Your task to perform on an android device: Open Amazon Image 0: 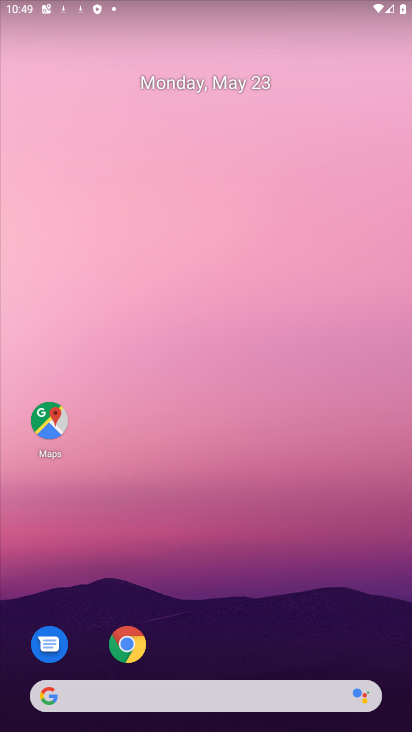
Step 0: press home button
Your task to perform on an android device: Open Amazon Image 1: 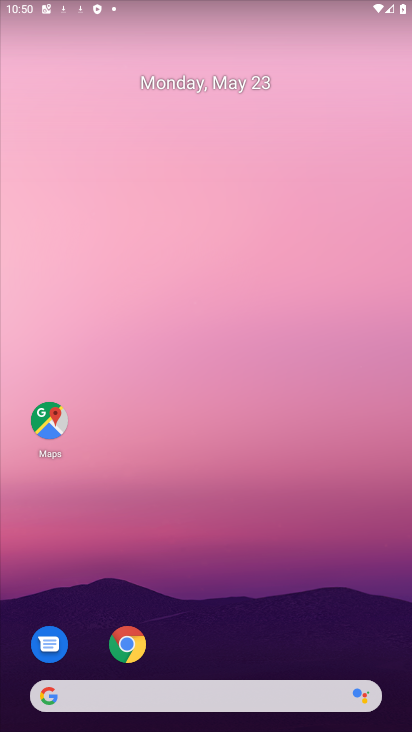
Step 1: drag from (187, 715) to (173, 239)
Your task to perform on an android device: Open Amazon Image 2: 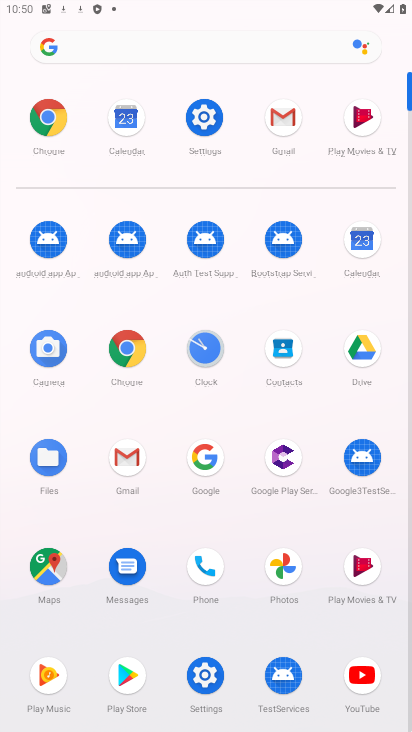
Step 2: click (136, 349)
Your task to perform on an android device: Open Amazon Image 3: 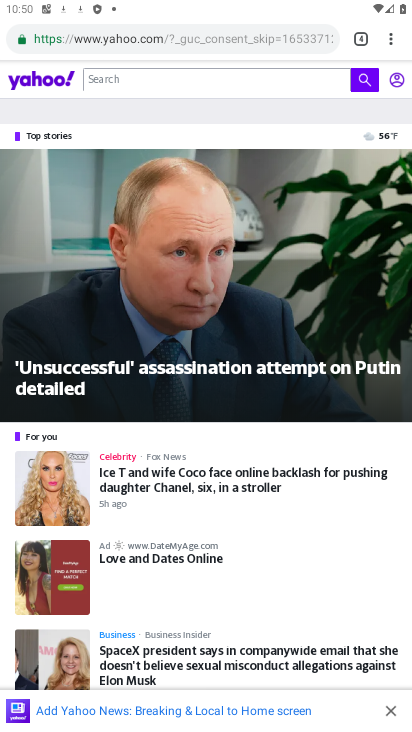
Step 3: click (364, 40)
Your task to perform on an android device: Open Amazon Image 4: 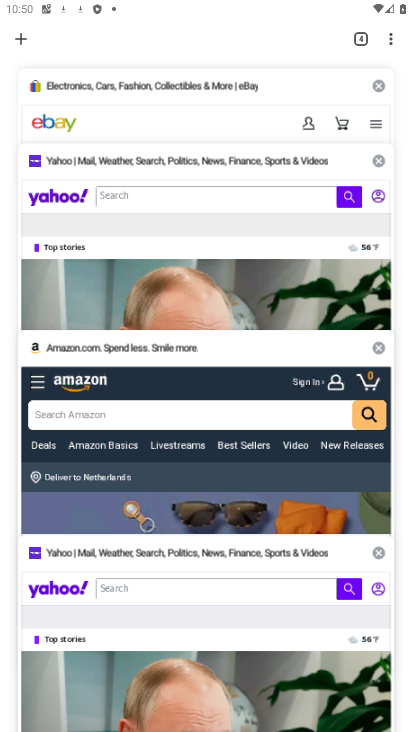
Step 4: click (25, 37)
Your task to perform on an android device: Open Amazon Image 5: 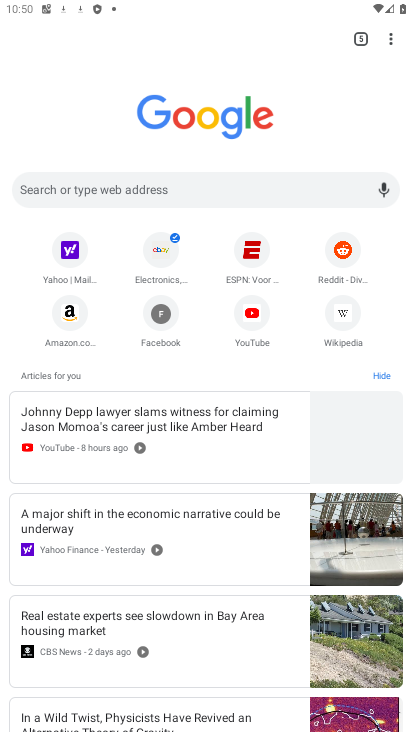
Step 5: click (78, 311)
Your task to perform on an android device: Open Amazon Image 6: 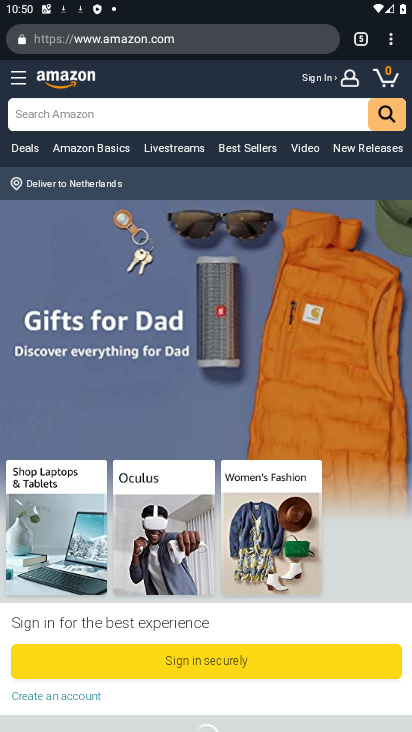
Step 6: task complete